Your task to perform on an android device: open app "DuckDuckGo Privacy Browser" (install if not already installed) Image 0: 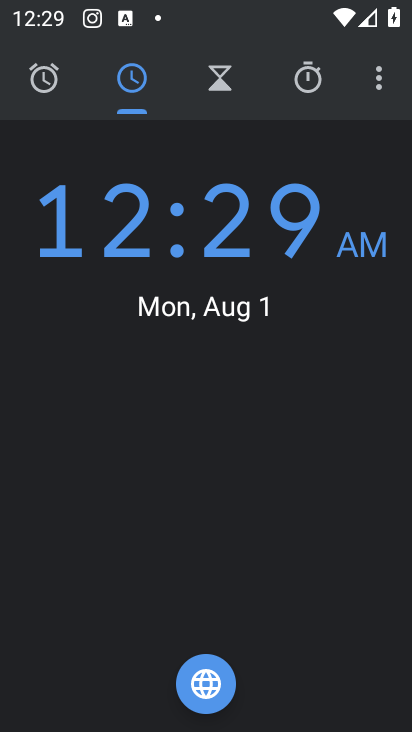
Step 0: press back button
Your task to perform on an android device: open app "DuckDuckGo Privacy Browser" (install if not already installed) Image 1: 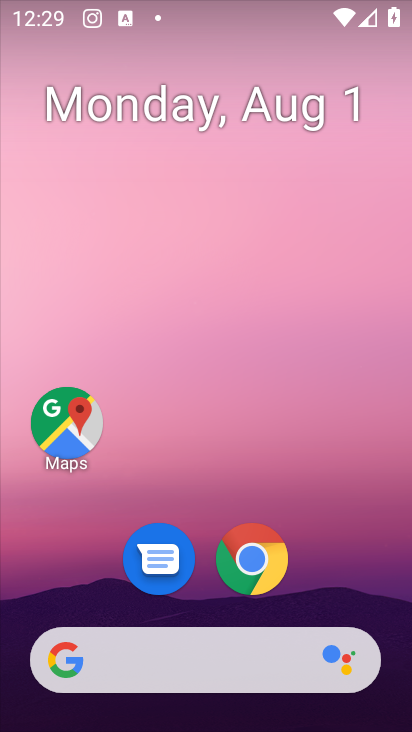
Step 1: drag from (60, 549) to (173, 10)
Your task to perform on an android device: open app "DuckDuckGo Privacy Browser" (install if not already installed) Image 2: 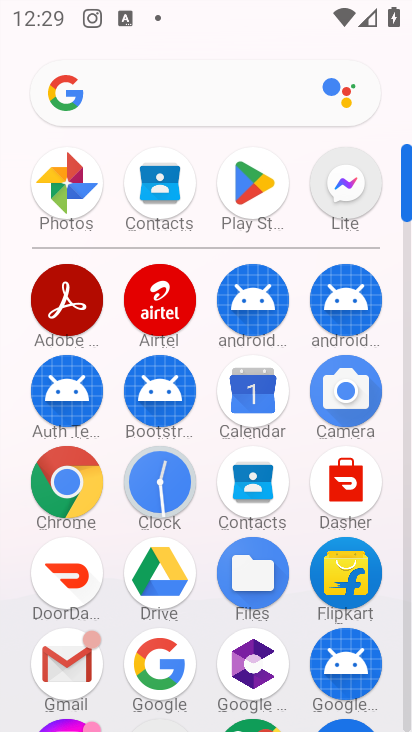
Step 2: click (246, 178)
Your task to perform on an android device: open app "DuckDuckGo Privacy Browser" (install if not already installed) Image 3: 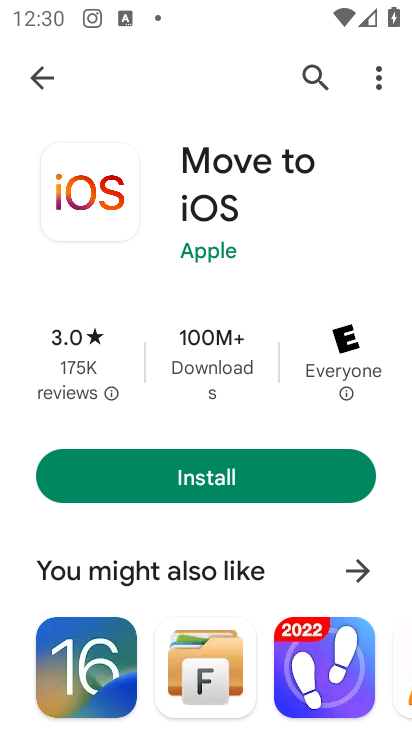
Step 3: click (311, 63)
Your task to perform on an android device: open app "DuckDuckGo Privacy Browser" (install if not already installed) Image 4: 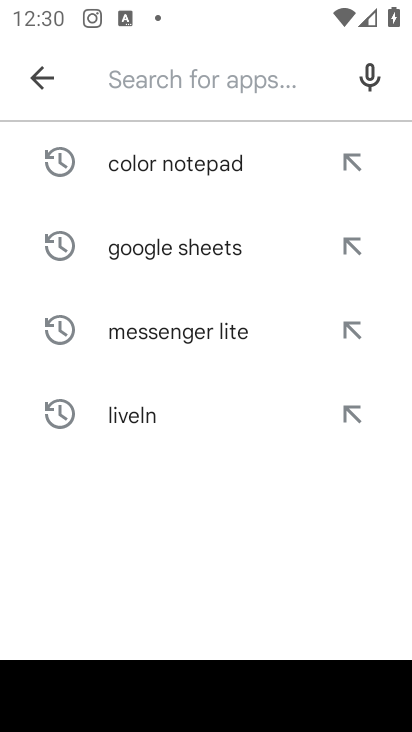
Step 4: click (136, 82)
Your task to perform on an android device: open app "DuckDuckGo Privacy Browser" (install if not already installed) Image 5: 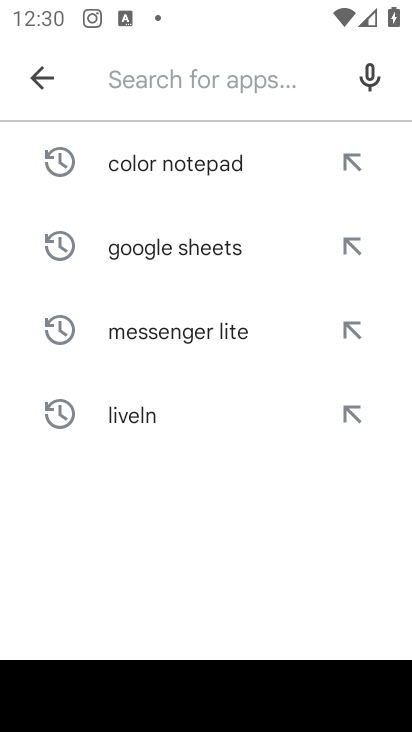
Step 5: type "duckduckgo"
Your task to perform on an android device: open app "DuckDuckGo Privacy Browser" (install if not already installed) Image 6: 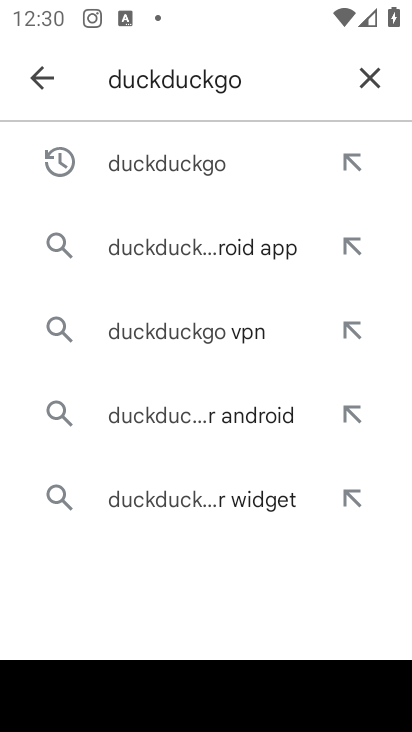
Step 6: click (199, 165)
Your task to perform on an android device: open app "DuckDuckGo Privacy Browser" (install if not already installed) Image 7: 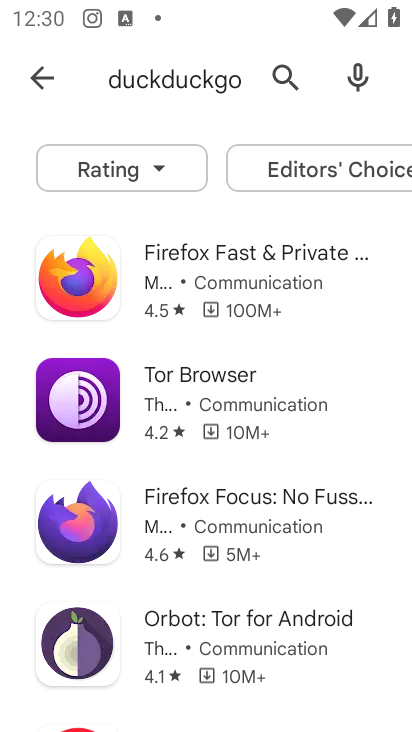
Step 7: task complete